Your task to perform on an android device: toggle priority inbox in the gmail app Image 0: 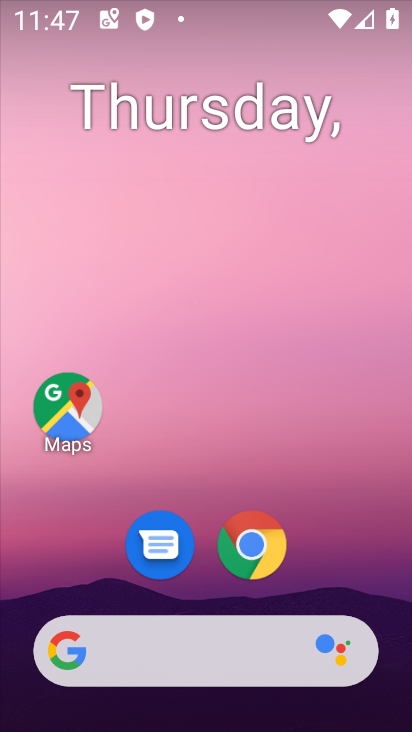
Step 0: drag from (318, 492) to (327, 157)
Your task to perform on an android device: toggle priority inbox in the gmail app Image 1: 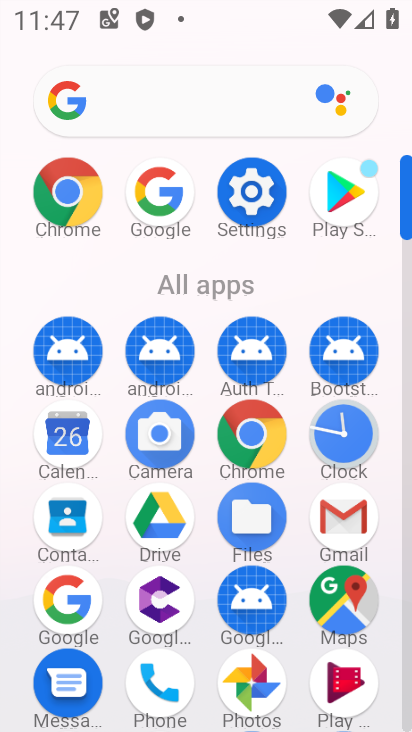
Step 1: click (344, 517)
Your task to perform on an android device: toggle priority inbox in the gmail app Image 2: 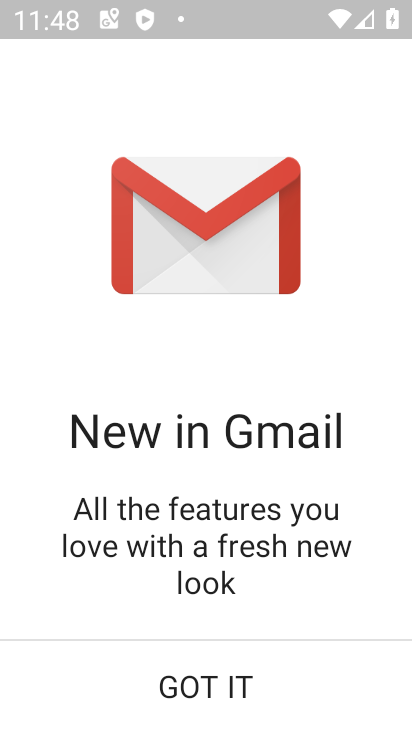
Step 2: click (211, 681)
Your task to perform on an android device: toggle priority inbox in the gmail app Image 3: 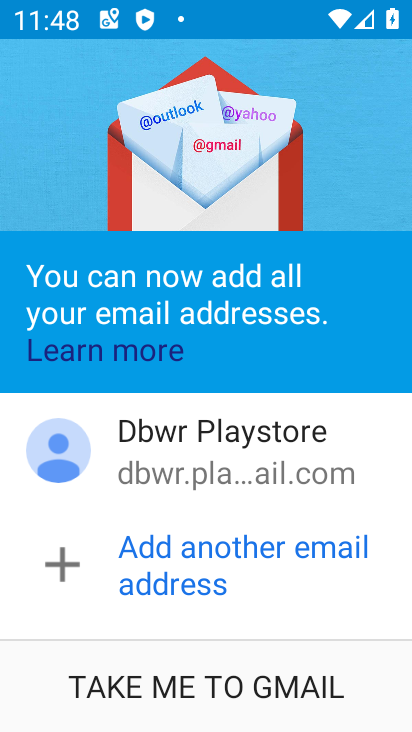
Step 3: click (246, 660)
Your task to perform on an android device: toggle priority inbox in the gmail app Image 4: 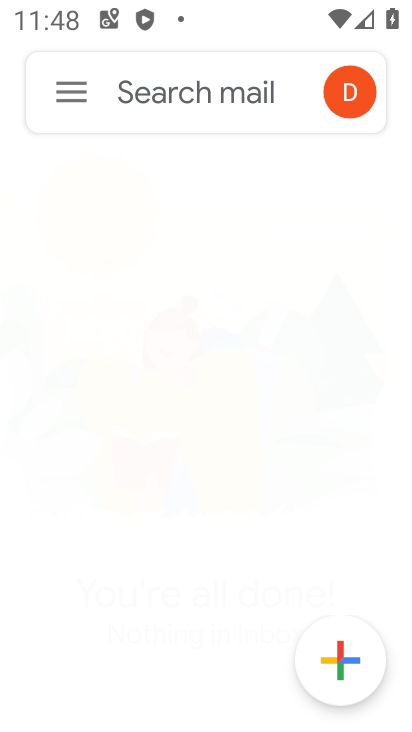
Step 4: click (245, 659)
Your task to perform on an android device: toggle priority inbox in the gmail app Image 5: 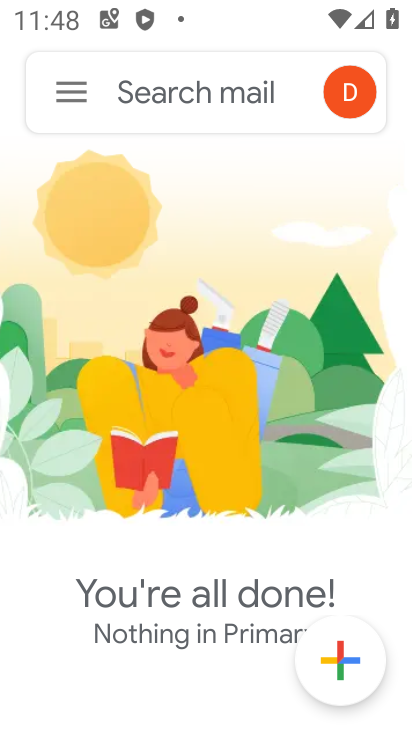
Step 5: click (56, 87)
Your task to perform on an android device: toggle priority inbox in the gmail app Image 6: 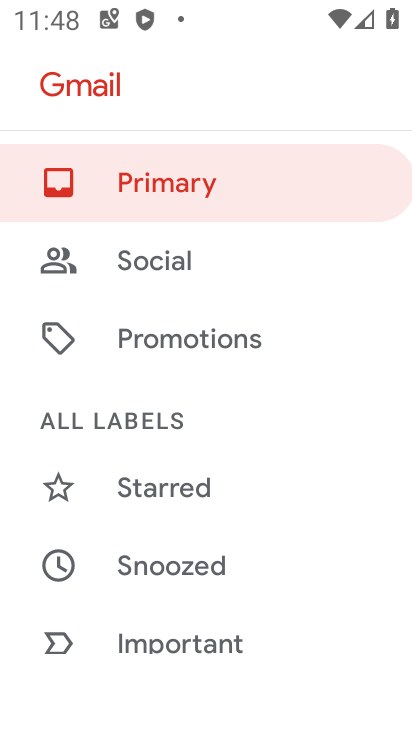
Step 6: drag from (191, 629) to (197, 341)
Your task to perform on an android device: toggle priority inbox in the gmail app Image 7: 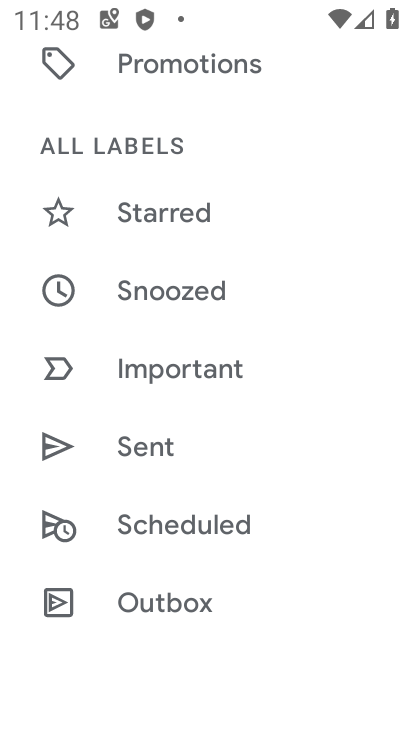
Step 7: drag from (198, 607) to (216, 219)
Your task to perform on an android device: toggle priority inbox in the gmail app Image 8: 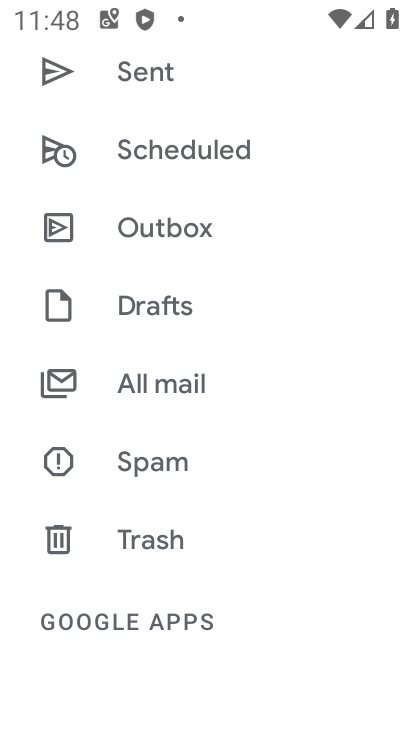
Step 8: drag from (174, 606) to (184, 275)
Your task to perform on an android device: toggle priority inbox in the gmail app Image 9: 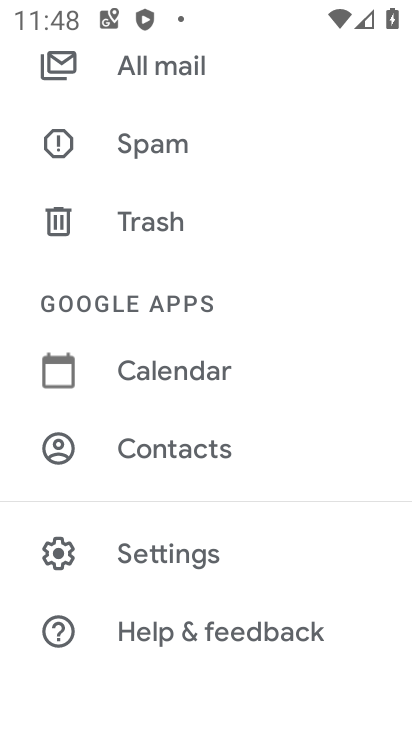
Step 9: click (166, 553)
Your task to perform on an android device: toggle priority inbox in the gmail app Image 10: 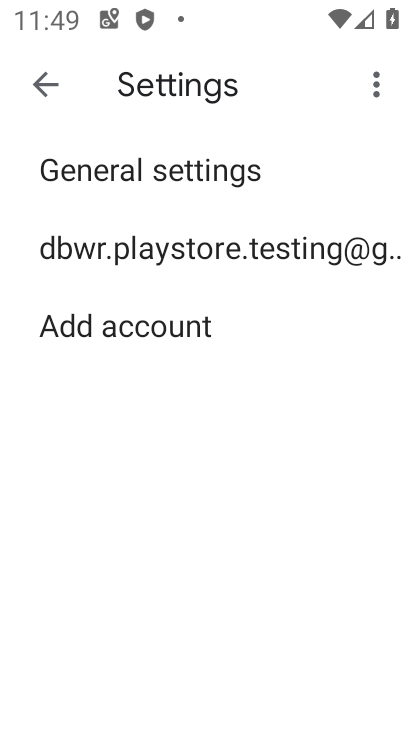
Step 10: click (211, 238)
Your task to perform on an android device: toggle priority inbox in the gmail app Image 11: 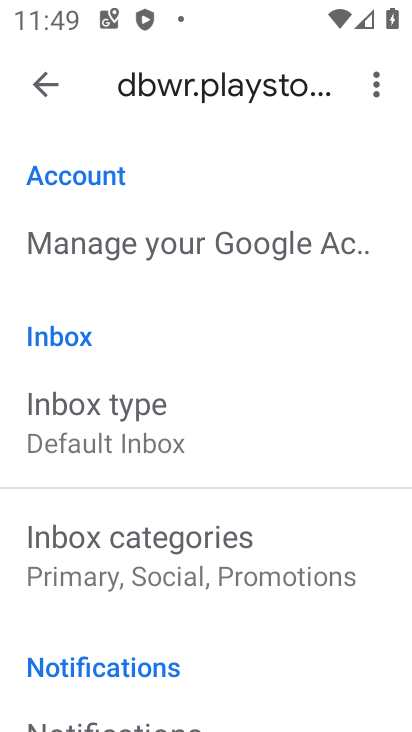
Step 11: drag from (132, 576) to (187, 259)
Your task to perform on an android device: toggle priority inbox in the gmail app Image 12: 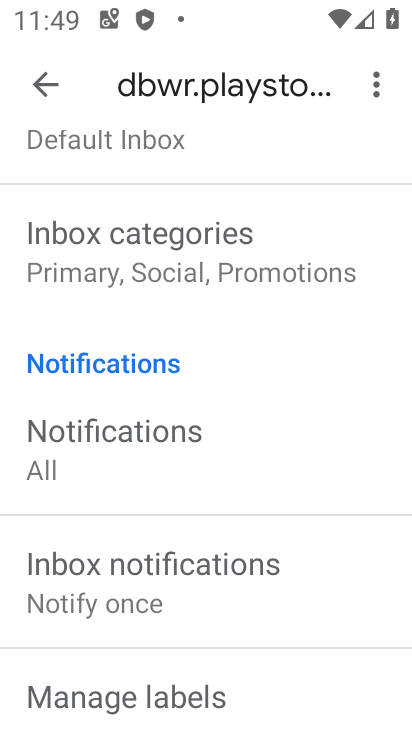
Step 12: drag from (248, 274) to (260, 471)
Your task to perform on an android device: toggle priority inbox in the gmail app Image 13: 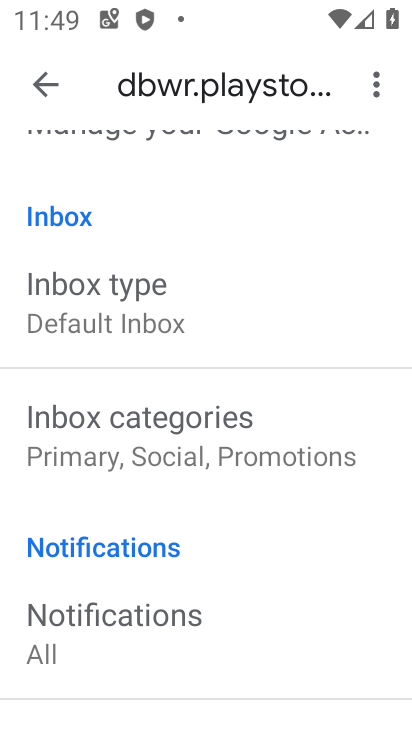
Step 13: click (161, 320)
Your task to perform on an android device: toggle priority inbox in the gmail app Image 14: 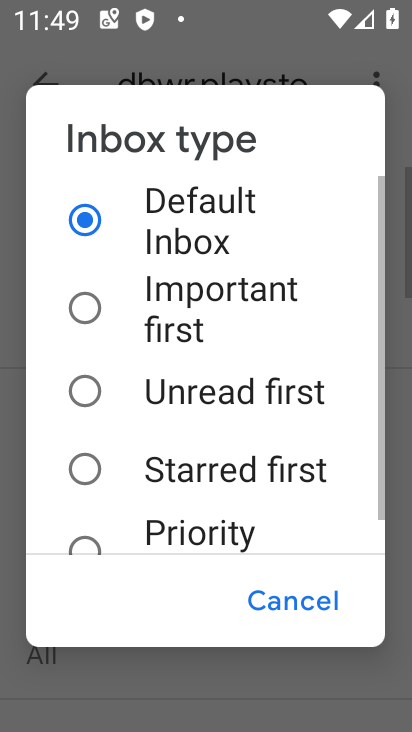
Step 14: click (188, 526)
Your task to perform on an android device: toggle priority inbox in the gmail app Image 15: 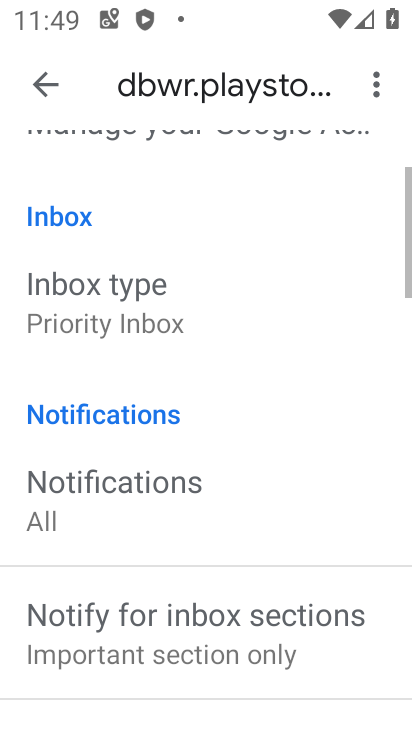
Step 15: task complete